Your task to perform on an android device: Show me the alarms in the clock app Image 0: 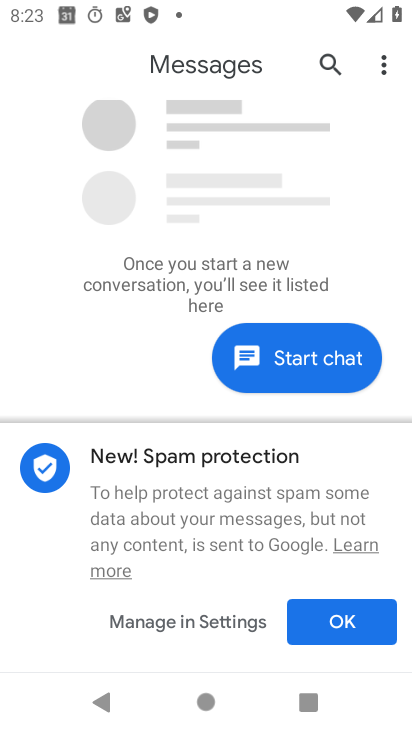
Step 0: press home button
Your task to perform on an android device: Show me the alarms in the clock app Image 1: 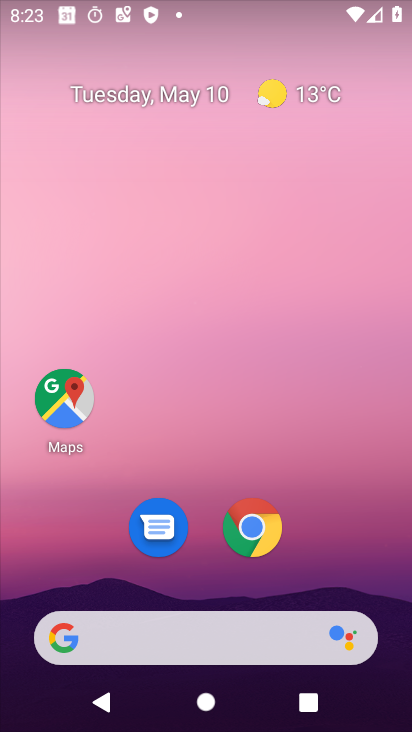
Step 1: drag from (29, 654) to (226, 225)
Your task to perform on an android device: Show me the alarms in the clock app Image 2: 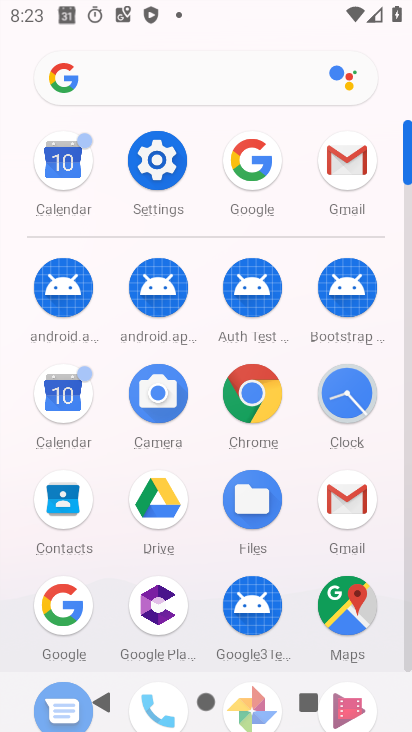
Step 2: click (349, 396)
Your task to perform on an android device: Show me the alarms in the clock app Image 3: 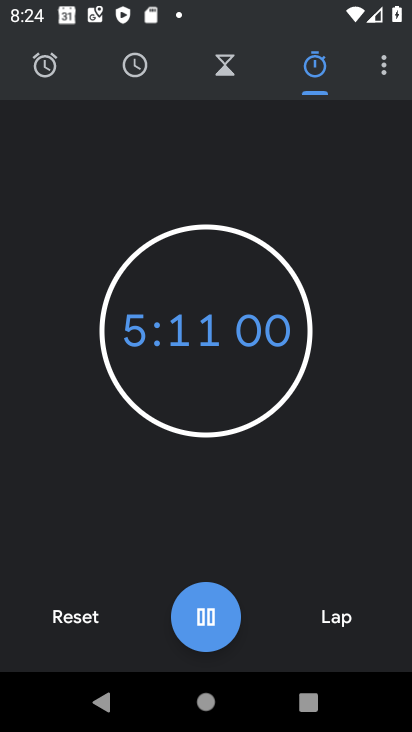
Step 3: click (44, 75)
Your task to perform on an android device: Show me the alarms in the clock app Image 4: 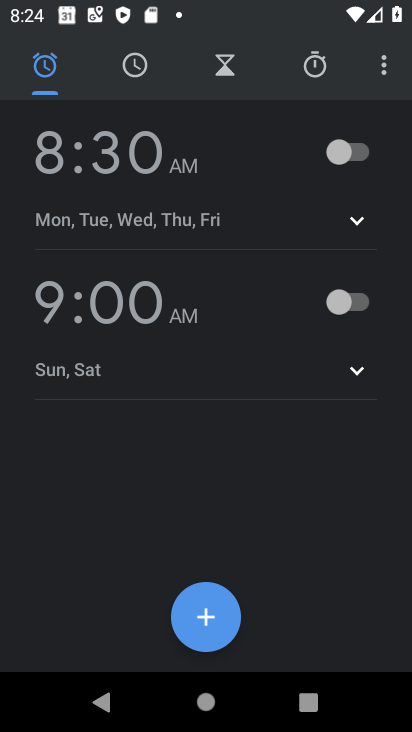
Step 4: task complete